Your task to perform on an android device: Go to Android settings Image 0: 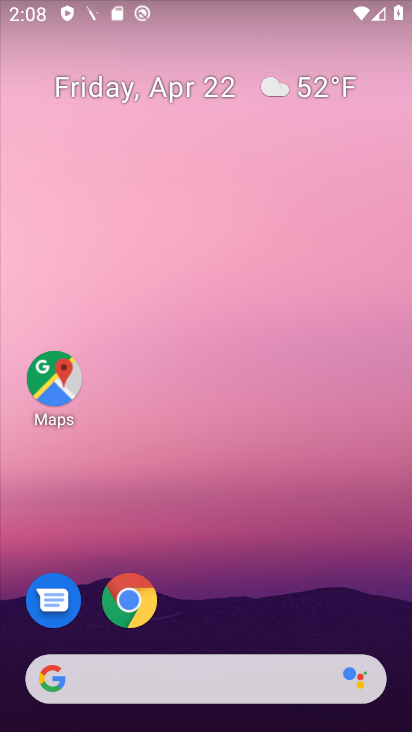
Step 0: drag from (259, 463) to (226, 10)
Your task to perform on an android device: Go to Android settings Image 1: 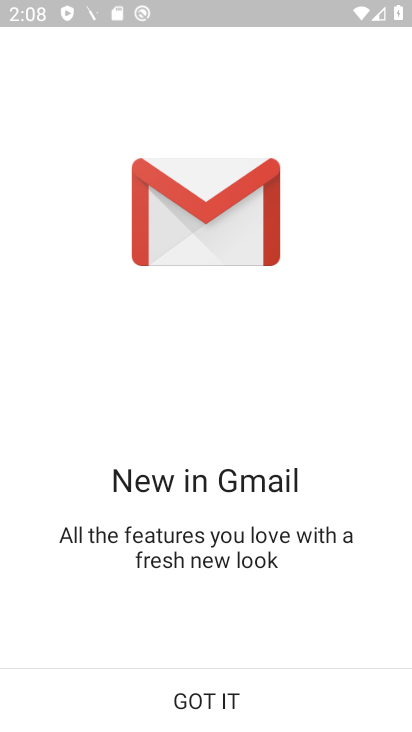
Step 1: press back button
Your task to perform on an android device: Go to Android settings Image 2: 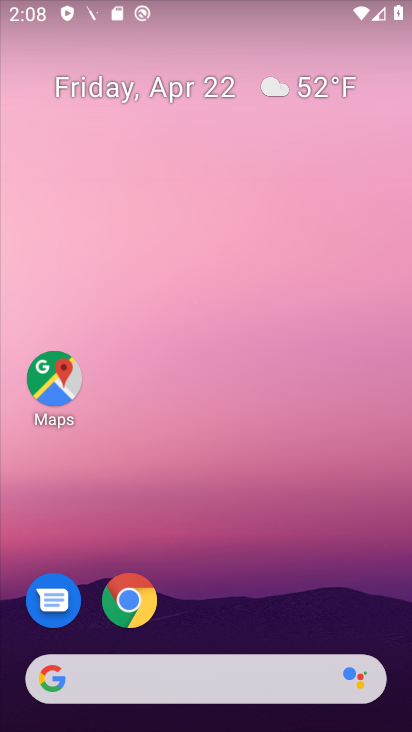
Step 2: drag from (267, 568) to (229, 0)
Your task to perform on an android device: Go to Android settings Image 3: 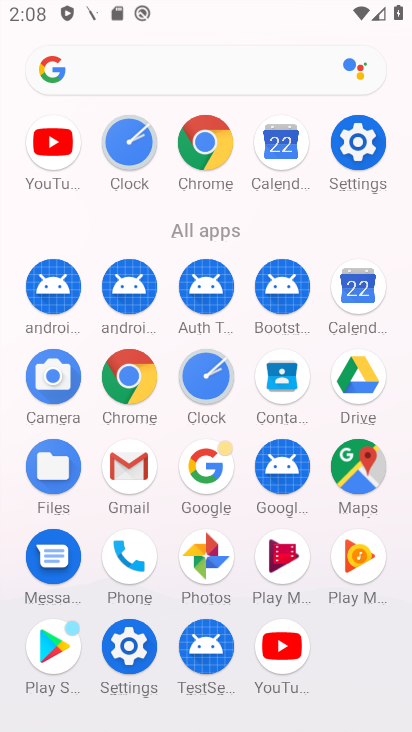
Step 3: click (131, 644)
Your task to perform on an android device: Go to Android settings Image 4: 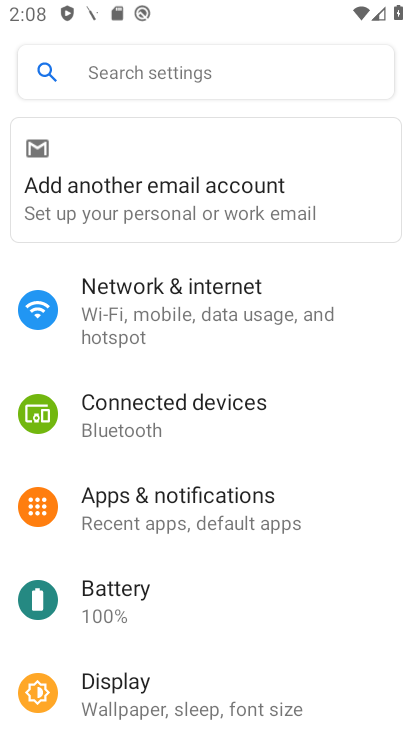
Step 4: drag from (235, 524) to (266, 198)
Your task to perform on an android device: Go to Android settings Image 5: 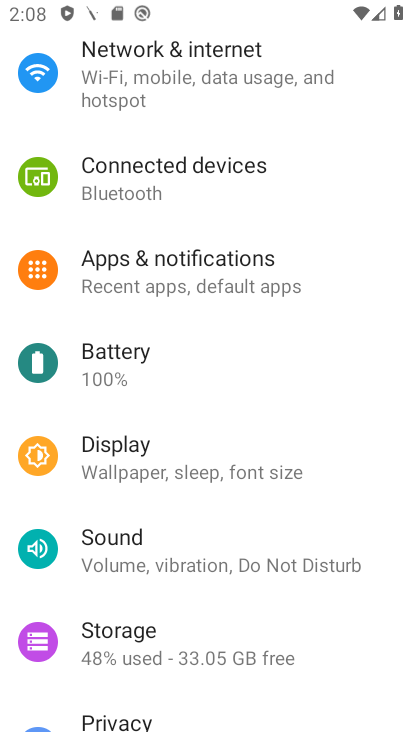
Step 5: drag from (293, 497) to (293, 211)
Your task to perform on an android device: Go to Android settings Image 6: 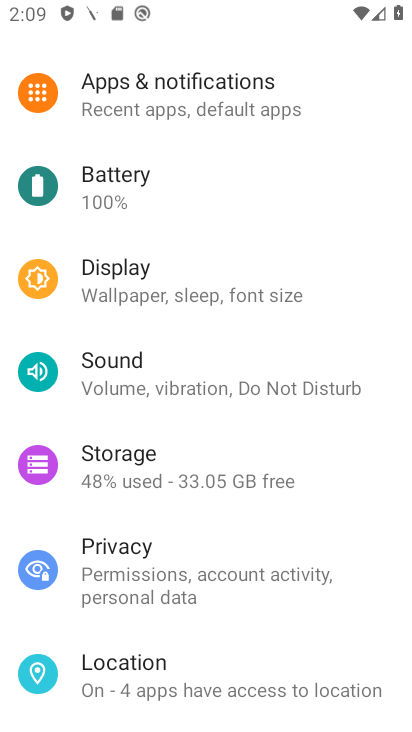
Step 6: drag from (325, 545) to (322, 185)
Your task to perform on an android device: Go to Android settings Image 7: 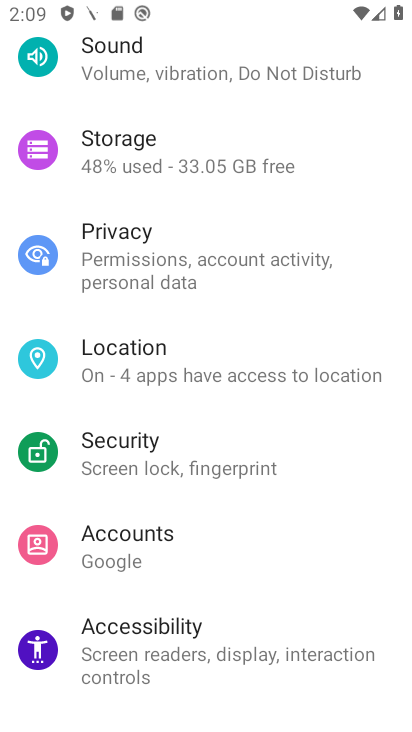
Step 7: drag from (321, 314) to (317, 166)
Your task to perform on an android device: Go to Android settings Image 8: 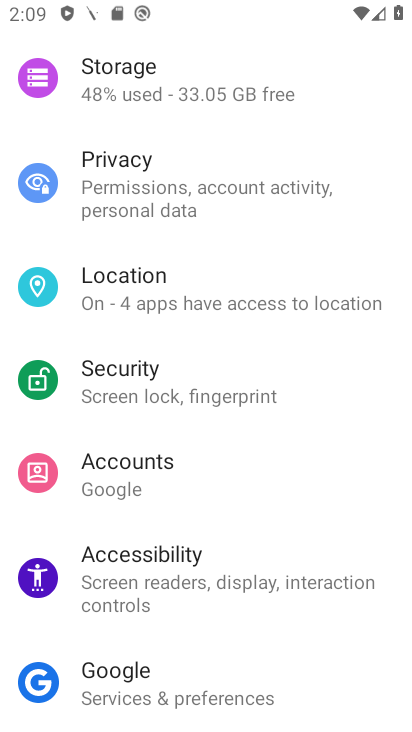
Step 8: click (305, 162)
Your task to perform on an android device: Go to Android settings Image 9: 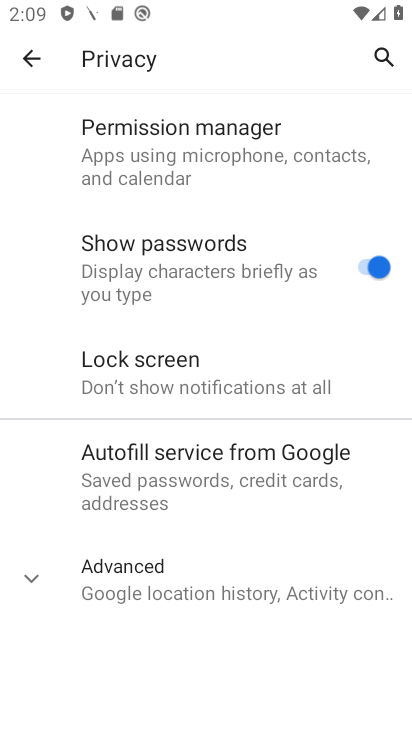
Step 9: click (36, 575)
Your task to perform on an android device: Go to Android settings Image 10: 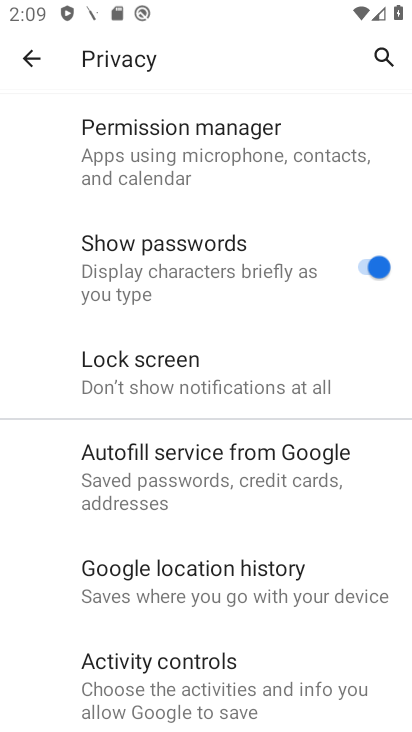
Step 10: drag from (244, 557) to (250, 235)
Your task to perform on an android device: Go to Android settings Image 11: 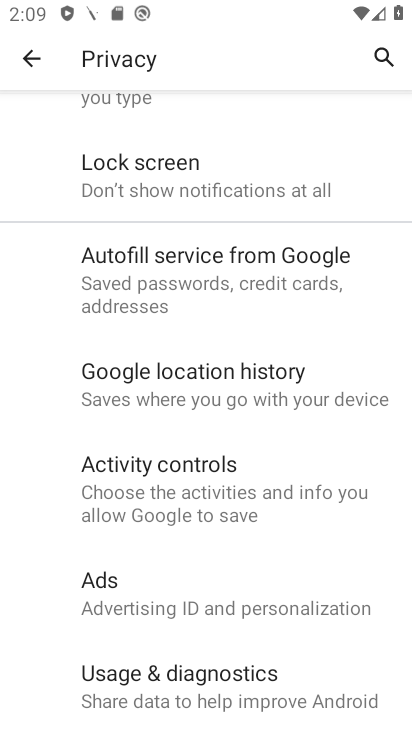
Step 11: drag from (289, 602) to (314, 197)
Your task to perform on an android device: Go to Android settings Image 12: 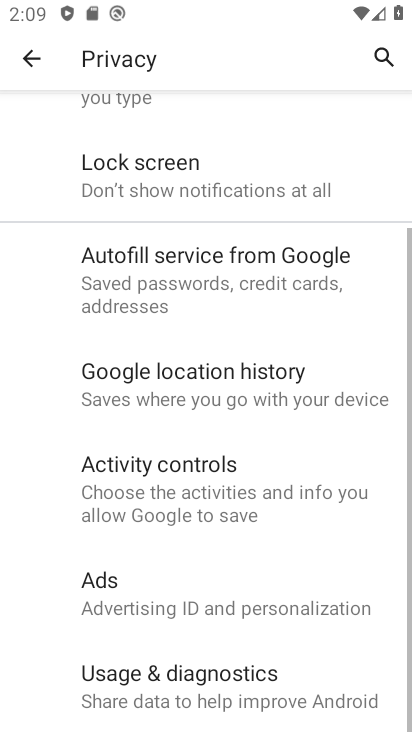
Step 12: drag from (251, 232) to (229, 509)
Your task to perform on an android device: Go to Android settings Image 13: 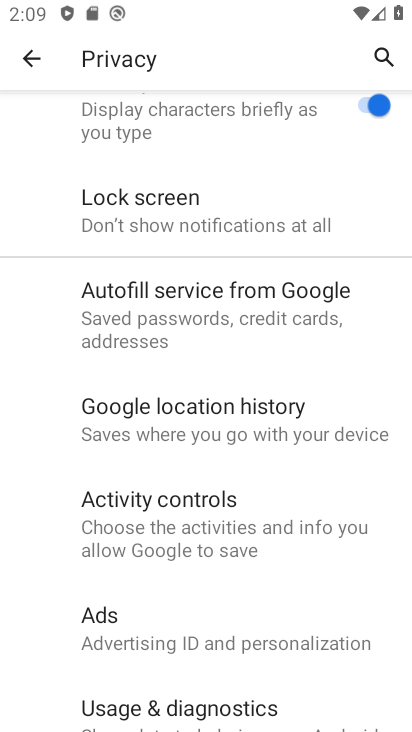
Step 13: drag from (267, 303) to (292, 558)
Your task to perform on an android device: Go to Android settings Image 14: 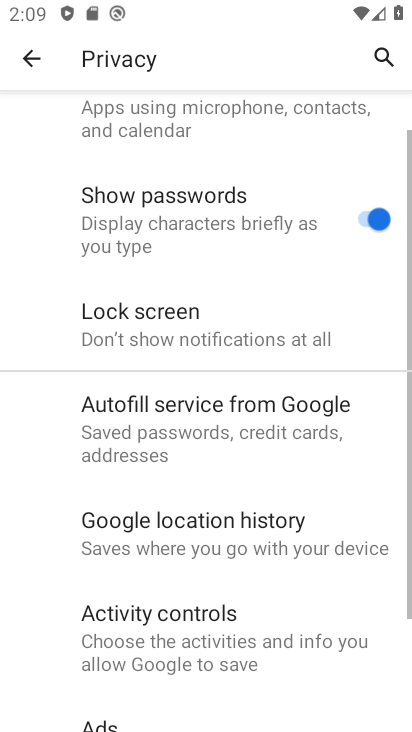
Step 14: drag from (237, 192) to (230, 574)
Your task to perform on an android device: Go to Android settings Image 15: 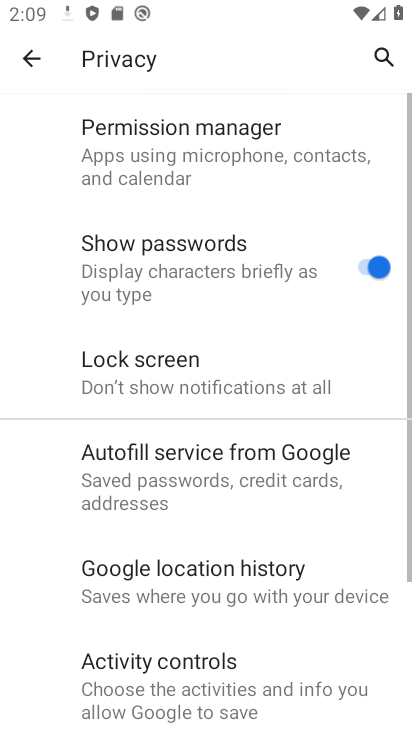
Step 15: drag from (222, 239) to (229, 589)
Your task to perform on an android device: Go to Android settings Image 16: 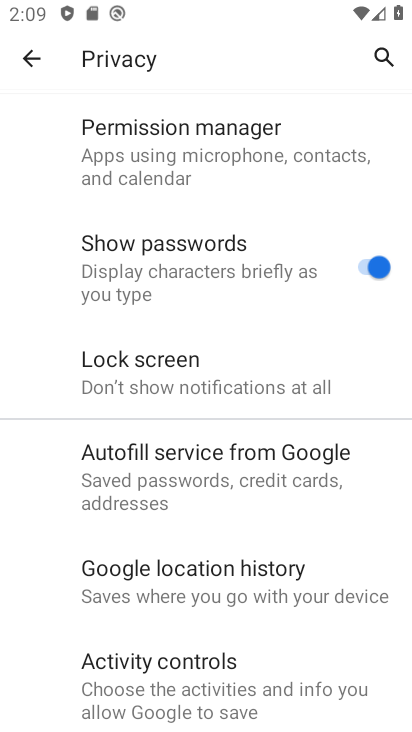
Step 16: click (39, 53)
Your task to perform on an android device: Go to Android settings Image 17: 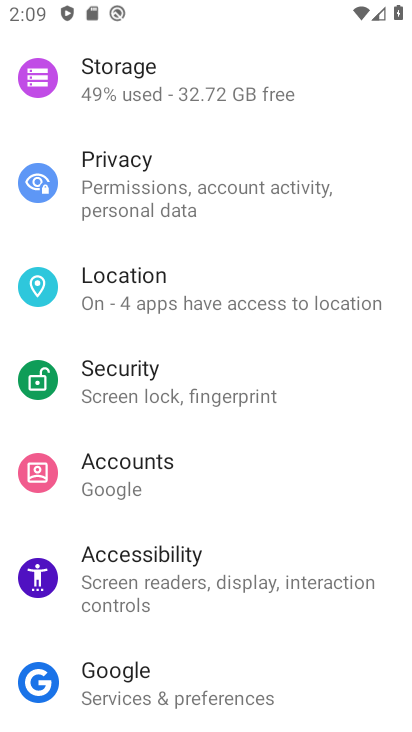
Step 17: task complete